Your task to perform on an android device: turn vacation reply on in the gmail app Image 0: 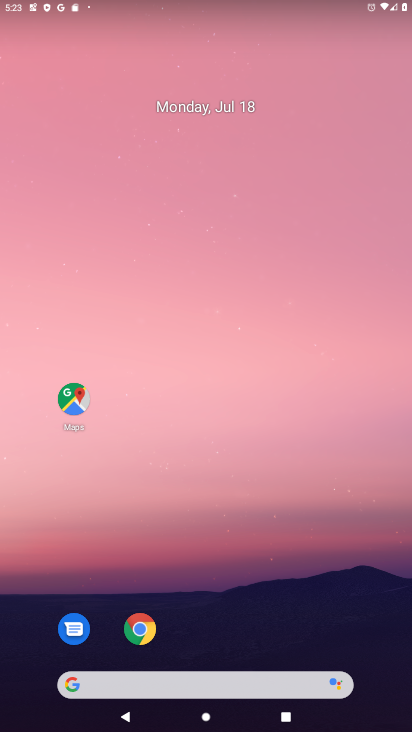
Step 0: drag from (285, 435) to (235, 93)
Your task to perform on an android device: turn vacation reply on in the gmail app Image 1: 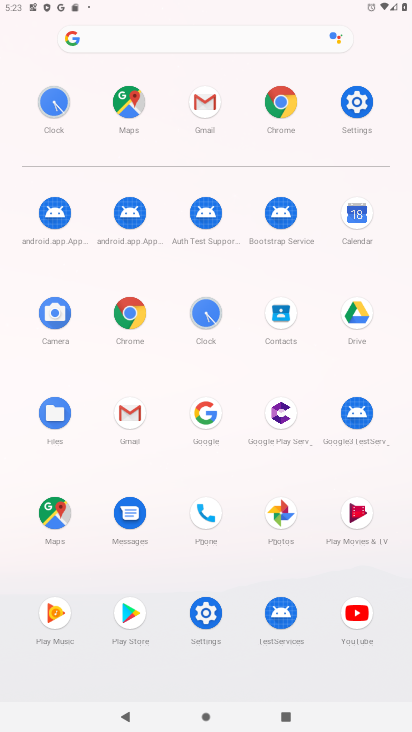
Step 1: click (202, 100)
Your task to perform on an android device: turn vacation reply on in the gmail app Image 2: 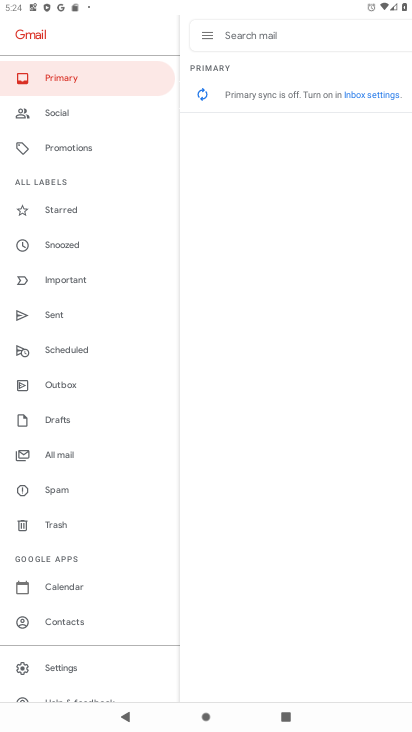
Step 2: click (68, 665)
Your task to perform on an android device: turn vacation reply on in the gmail app Image 3: 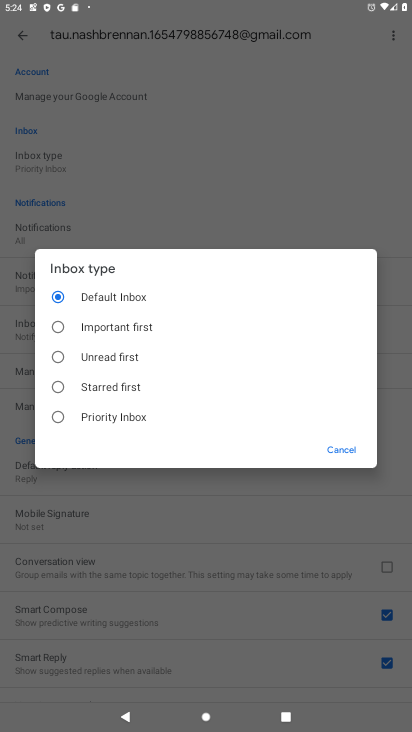
Step 3: click (333, 442)
Your task to perform on an android device: turn vacation reply on in the gmail app Image 4: 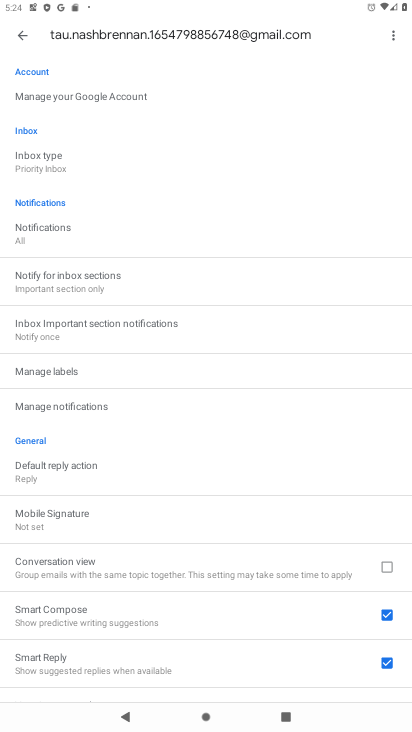
Step 4: drag from (166, 510) to (244, 137)
Your task to perform on an android device: turn vacation reply on in the gmail app Image 5: 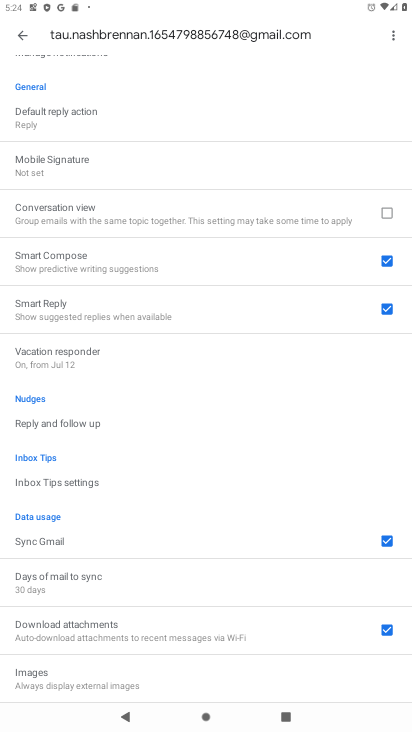
Step 5: click (46, 362)
Your task to perform on an android device: turn vacation reply on in the gmail app Image 6: 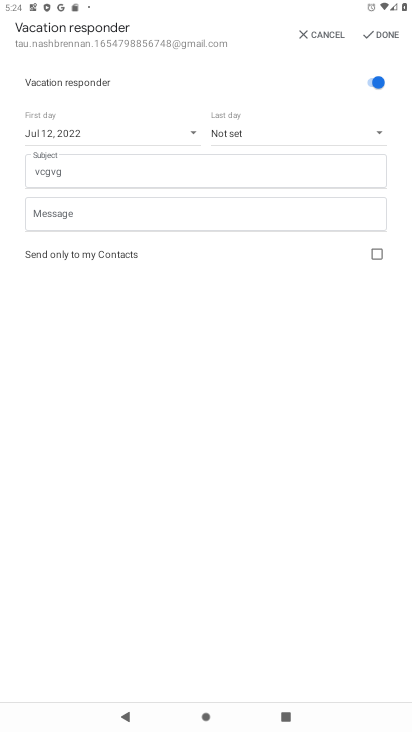
Step 6: task complete